Your task to perform on an android device: Show me recent news Image 0: 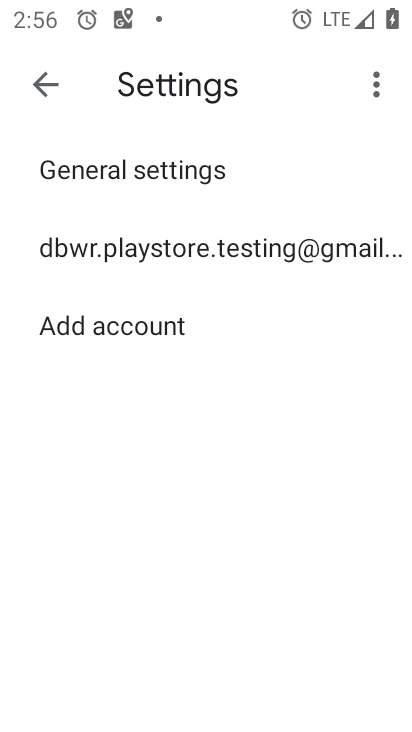
Step 0: press back button
Your task to perform on an android device: Show me recent news Image 1: 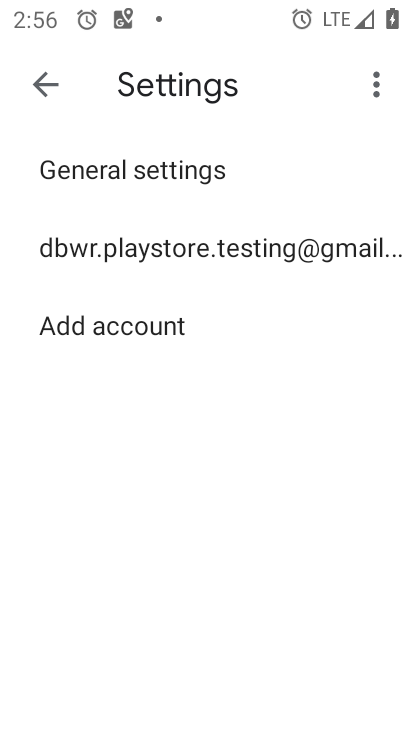
Step 1: press home button
Your task to perform on an android device: Show me recent news Image 2: 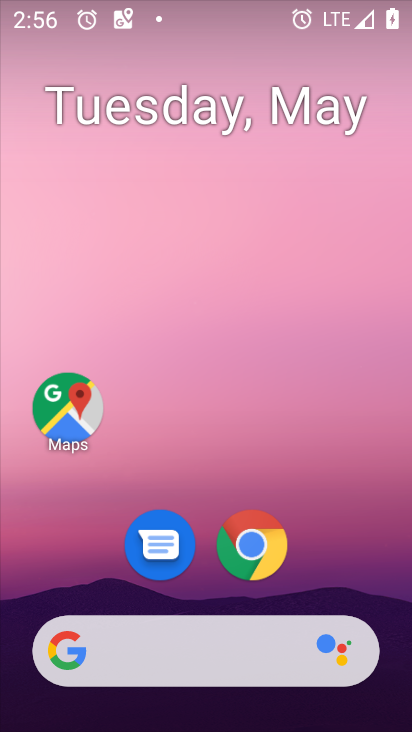
Step 2: drag from (370, 512) to (297, 34)
Your task to perform on an android device: Show me recent news Image 3: 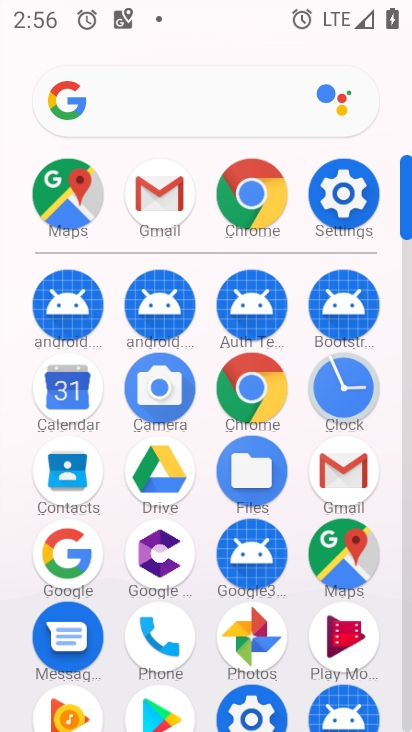
Step 3: click (252, 198)
Your task to perform on an android device: Show me recent news Image 4: 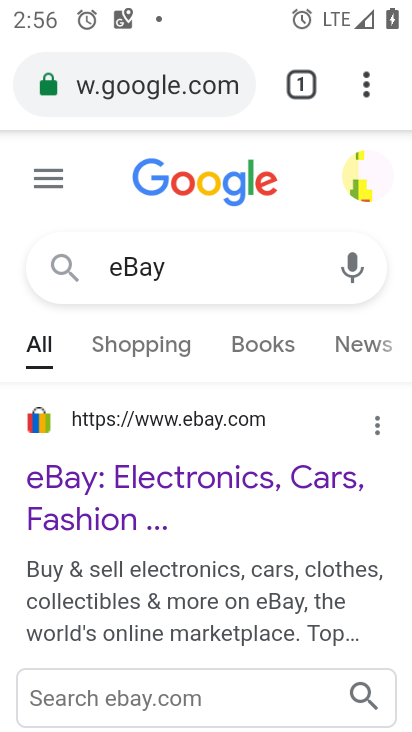
Step 4: click (165, 82)
Your task to perform on an android device: Show me recent news Image 5: 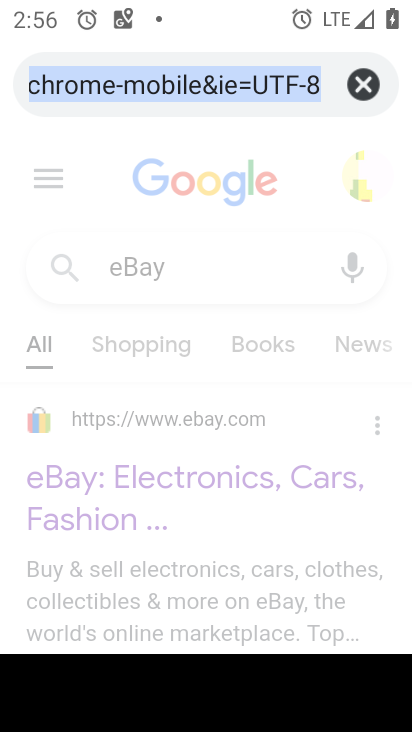
Step 5: click (373, 78)
Your task to perform on an android device: Show me recent news Image 6: 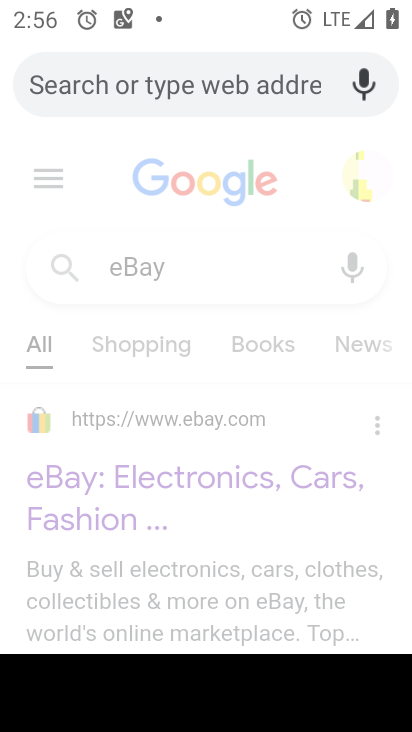
Step 6: type "Show me recent news"
Your task to perform on an android device: Show me recent news Image 7: 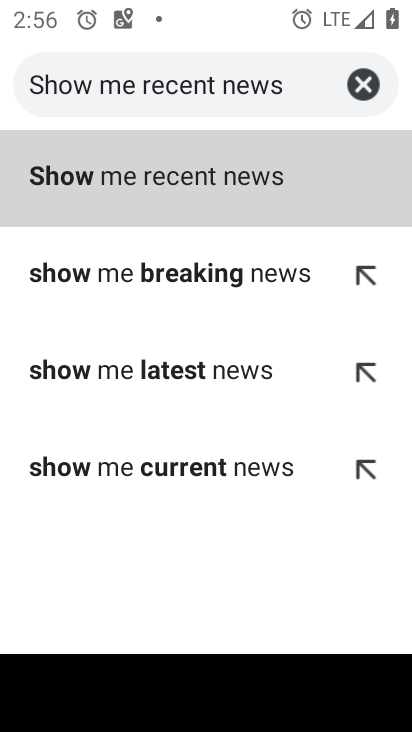
Step 7: click (196, 173)
Your task to perform on an android device: Show me recent news Image 8: 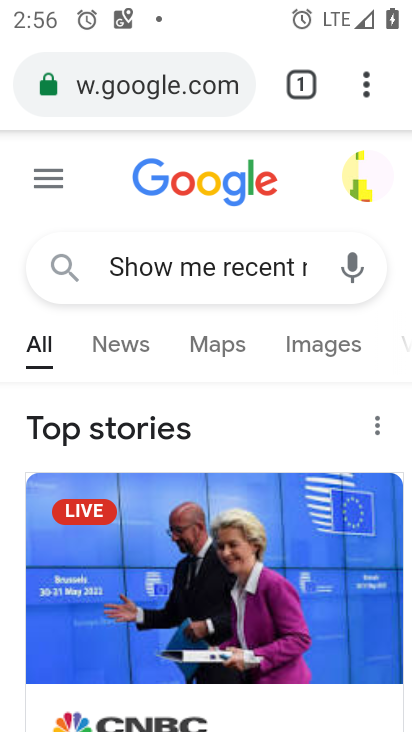
Step 8: task complete